Your task to perform on an android device: open chrome privacy settings Image 0: 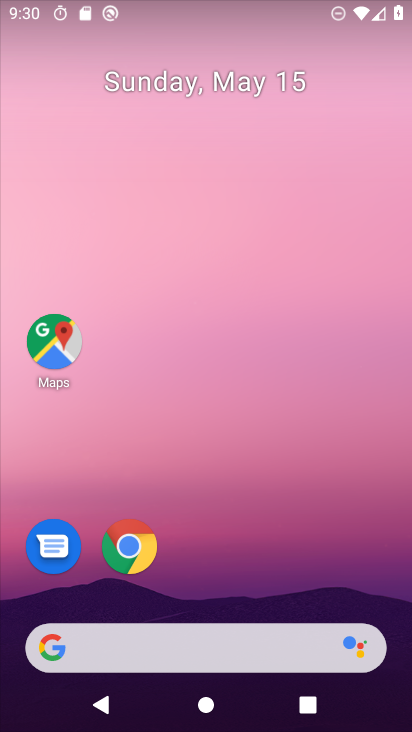
Step 0: click (135, 544)
Your task to perform on an android device: open chrome privacy settings Image 1: 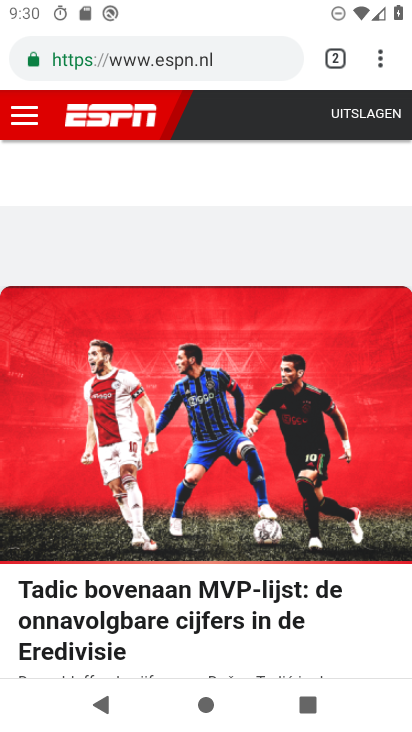
Step 1: click (377, 56)
Your task to perform on an android device: open chrome privacy settings Image 2: 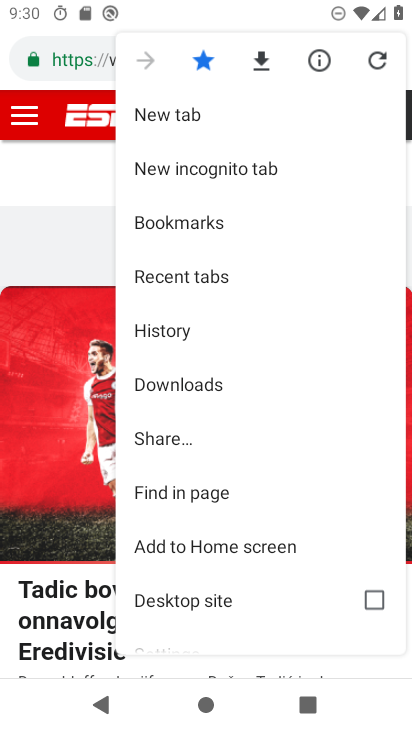
Step 2: drag from (252, 463) to (273, 153)
Your task to perform on an android device: open chrome privacy settings Image 3: 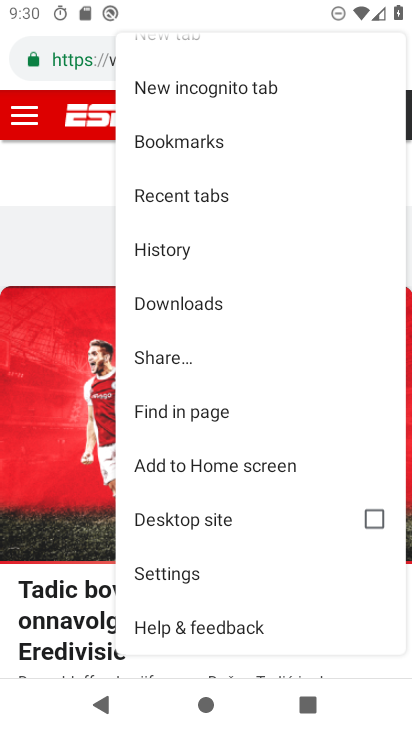
Step 3: click (214, 571)
Your task to perform on an android device: open chrome privacy settings Image 4: 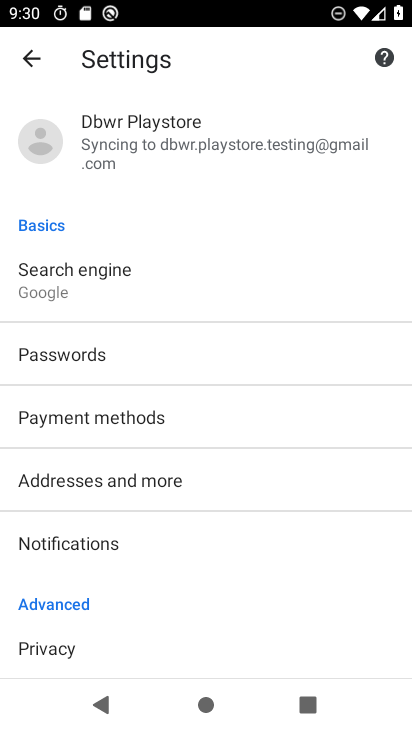
Step 4: click (147, 652)
Your task to perform on an android device: open chrome privacy settings Image 5: 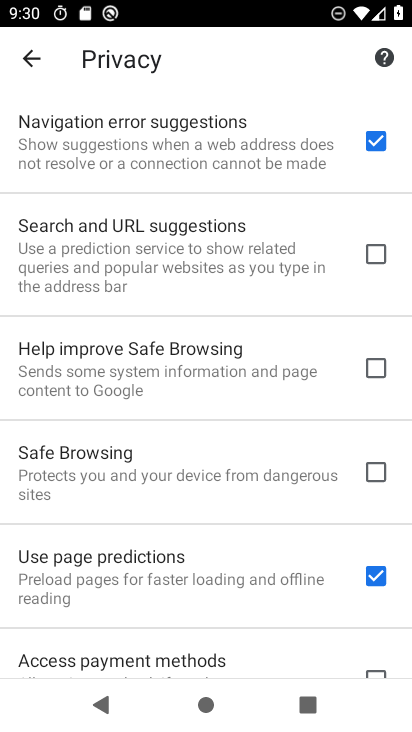
Step 5: task complete